Your task to perform on an android device: check android version Image 0: 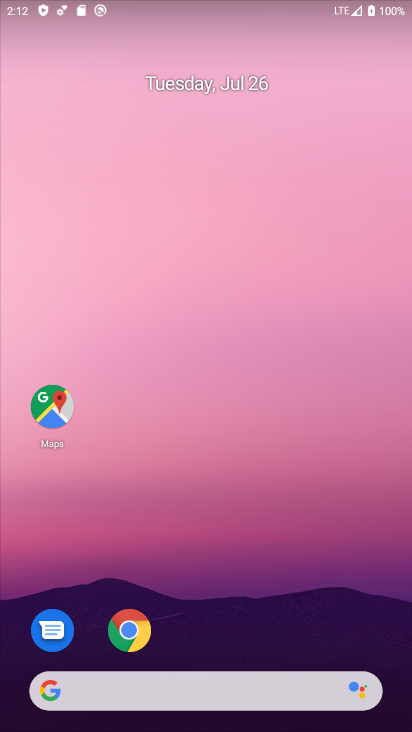
Step 0: drag from (274, 351) to (274, 316)
Your task to perform on an android device: check android version Image 1: 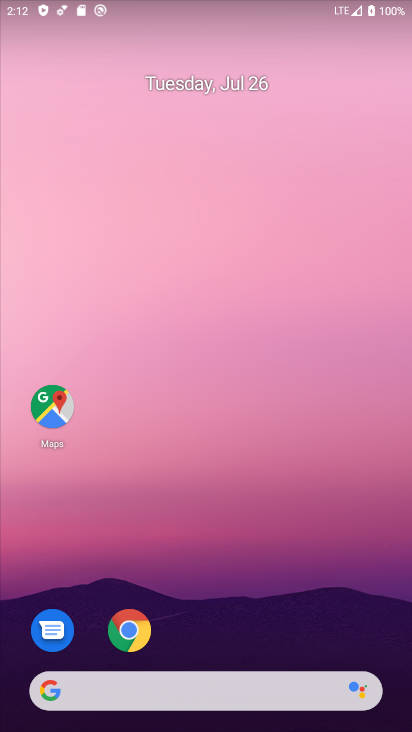
Step 1: drag from (247, 541) to (198, 189)
Your task to perform on an android device: check android version Image 2: 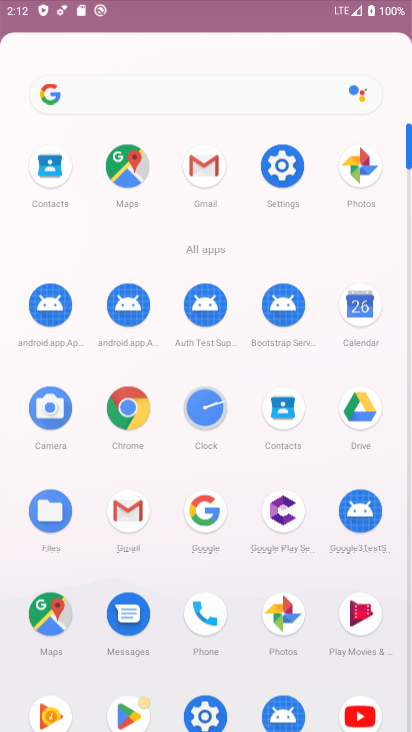
Step 2: drag from (205, 459) to (171, 218)
Your task to perform on an android device: check android version Image 3: 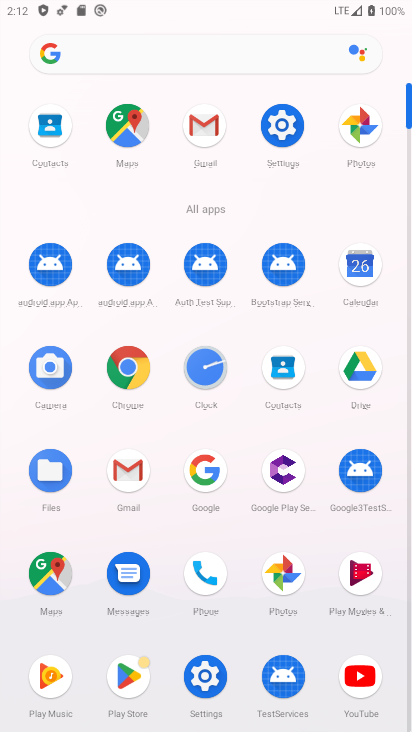
Step 3: drag from (200, 547) to (127, 113)
Your task to perform on an android device: check android version Image 4: 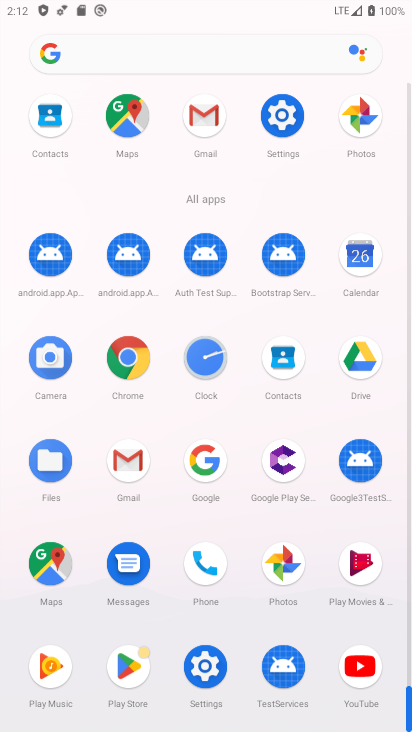
Step 4: drag from (255, 588) to (261, 95)
Your task to perform on an android device: check android version Image 5: 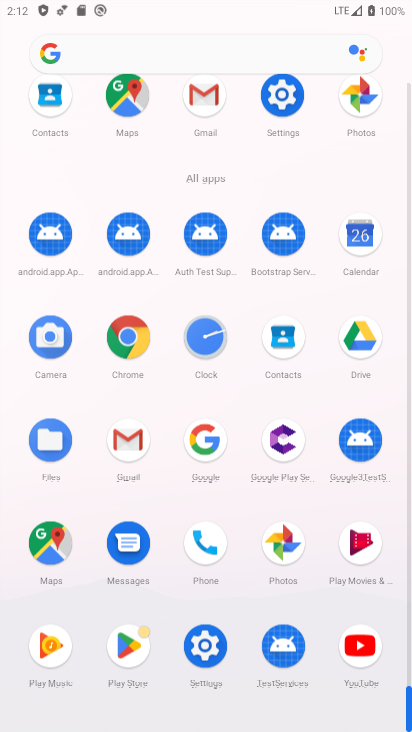
Step 5: drag from (242, 600) to (241, 232)
Your task to perform on an android device: check android version Image 6: 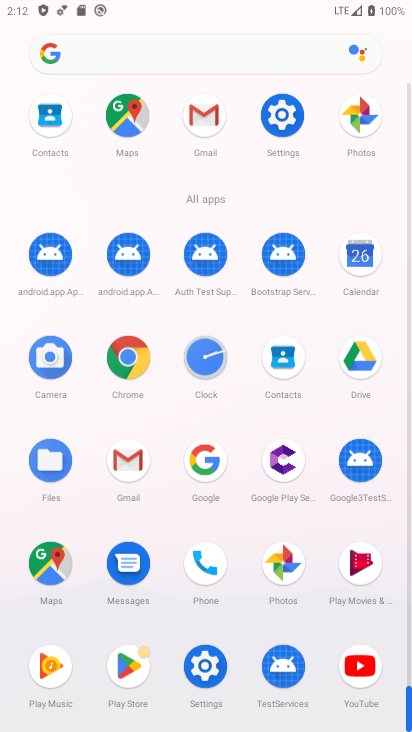
Step 6: drag from (313, 257) to (315, 123)
Your task to perform on an android device: check android version Image 7: 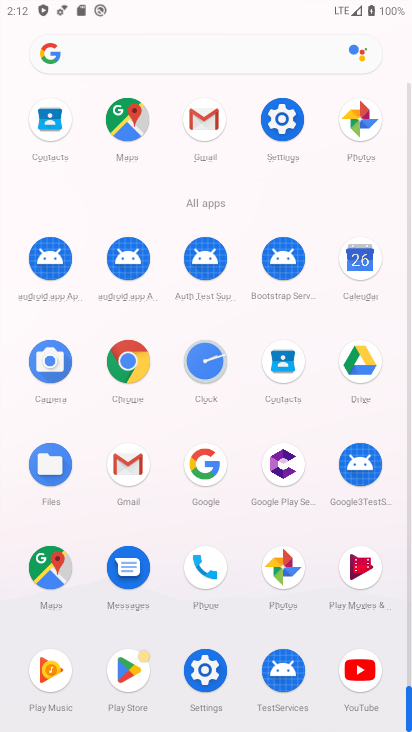
Step 7: drag from (224, 362) to (218, 194)
Your task to perform on an android device: check android version Image 8: 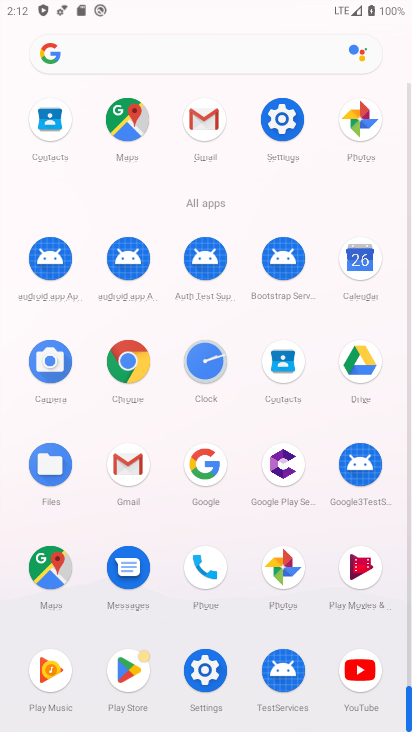
Step 8: click (200, 676)
Your task to perform on an android device: check android version Image 9: 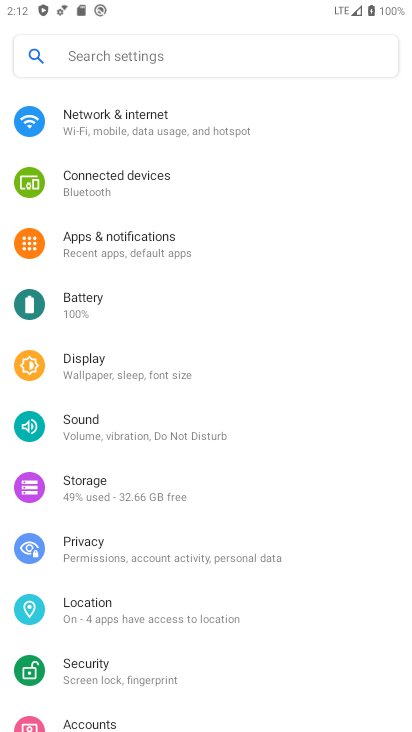
Step 9: click (205, 668)
Your task to perform on an android device: check android version Image 10: 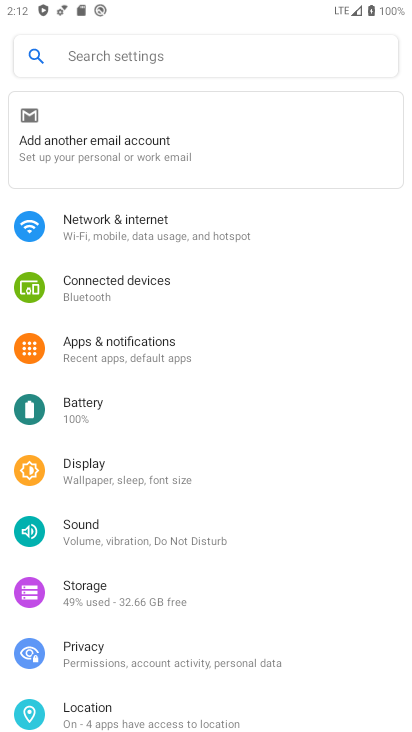
Step 10: drag from (67, 396) to (173, 645)
Your task to perform on an android device: check android version Image 11: 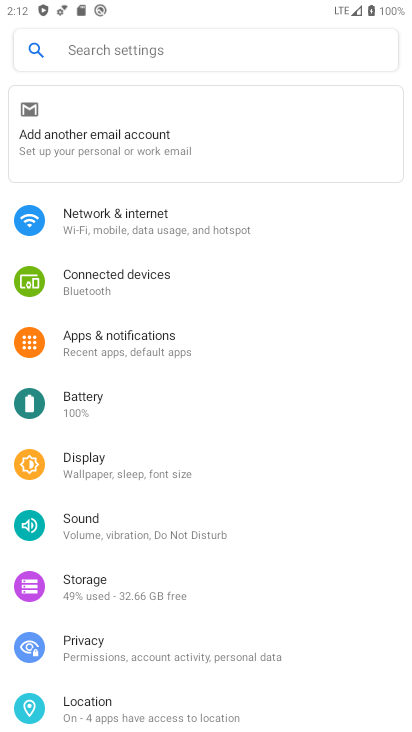
Step 11: drag from (220, 513) to (183, 233)
Your task to perform on an android device: check android version Image 12: 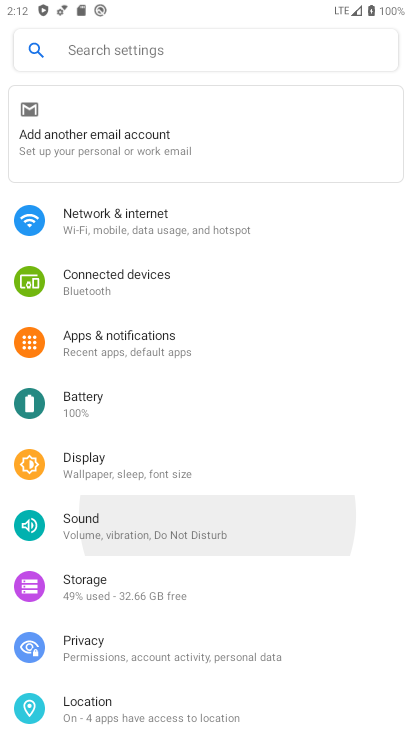
Step 12: drag from (173, 461) to (188, 136)
Your task to perform on an android device: check android version Image 13: 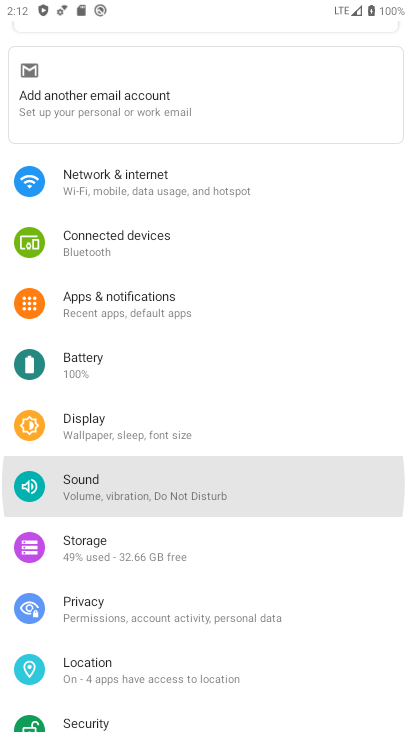
Step 13: drag from (137, 511) to (197, 235)
Your task to perform on an android device: check android version Image 14: 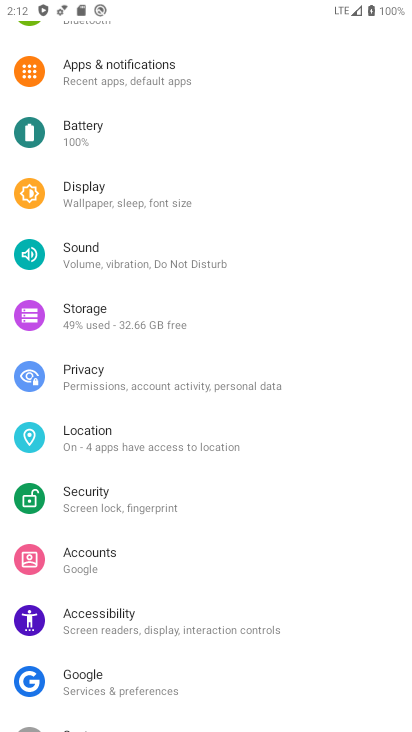
Step 14: drag from (98, 585) to (48, 131)
Your task to perform on an android device: check android version Image 15: 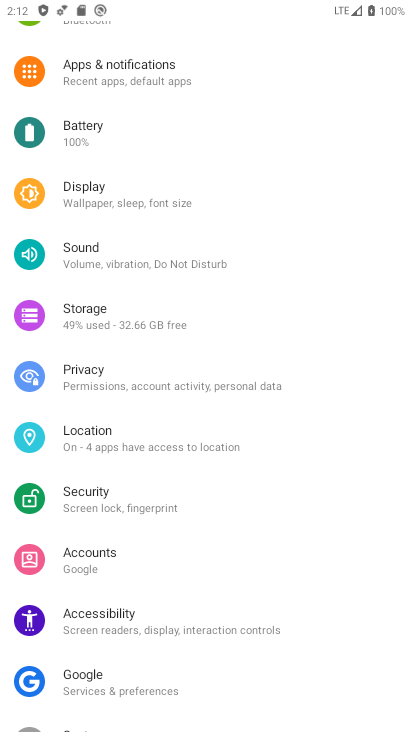
Step 15: drag from (121, 508) to (81, 167)
Your task to perform on an android device: check android version Image 16: 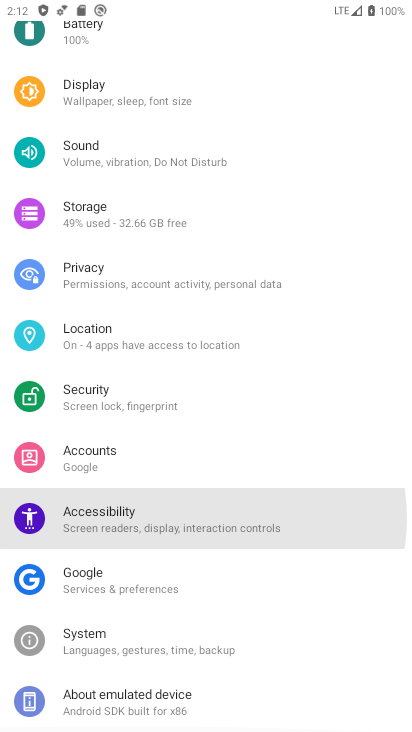
Step 16: drag from (167, 592) to (241, 158)
Your task to perform on an android device: check android version Image 17: 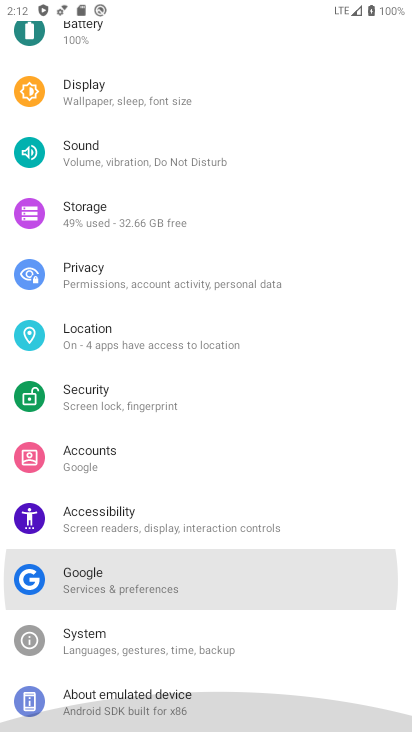
Step 17: drag from (195, 514) to (170, 112)
Your task to perform on an android device: check android version Image 18: 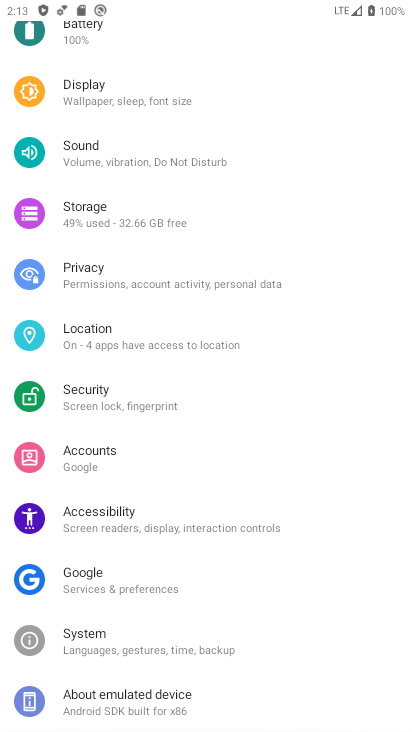
Step 18: click (93, 687)
Your task to perform on an android device: check android version Image 19: 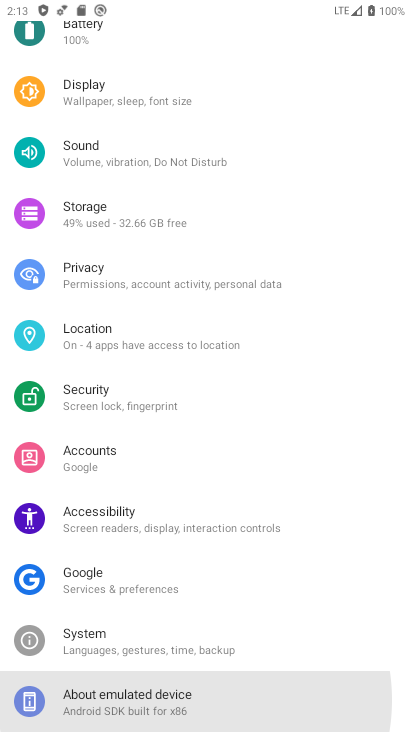
Step 19: click (100, 692)
Your task to perform on an android device: check android version Image 20: 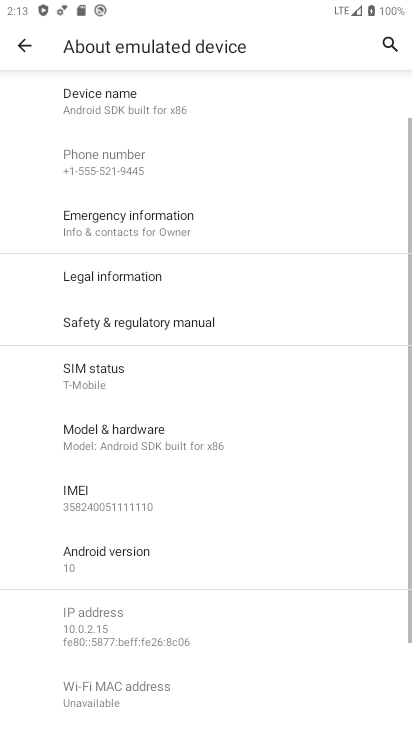
Step 20: task complete